Your task to perform on an android device: Open location settings Image 0: 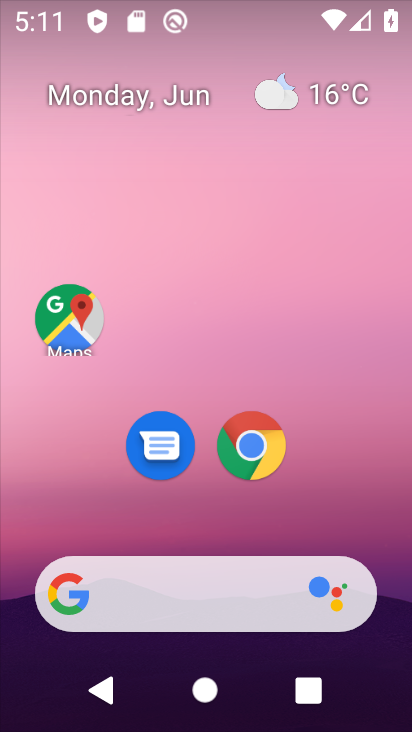
Step 0: drag from (348, 516) to (322, 21)
Your task to perform on an android device: Open location settings Image 1: 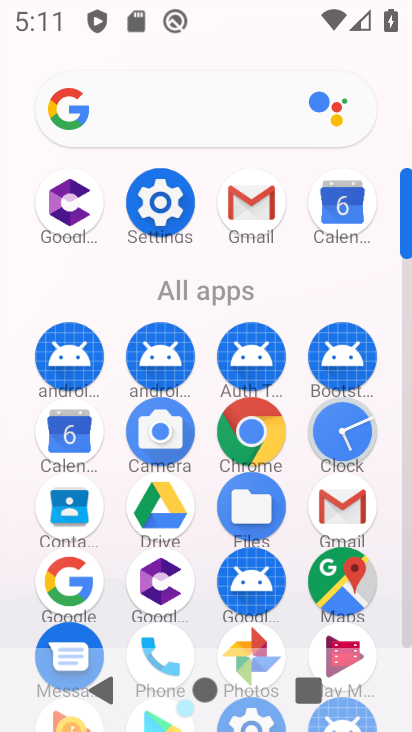
Step 1: click (162, 203)
Your task to perform on an android device: Open location settings Image 2: 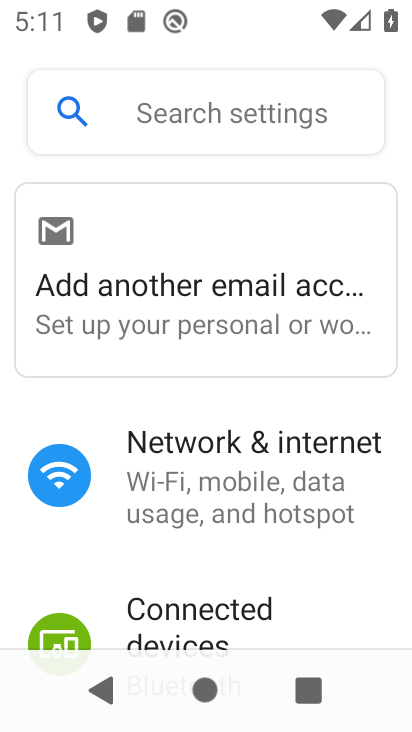
Step 2: drag from (189, 570) to (253, 345)
Your task to perform on an android device: Open location settings Image 3: 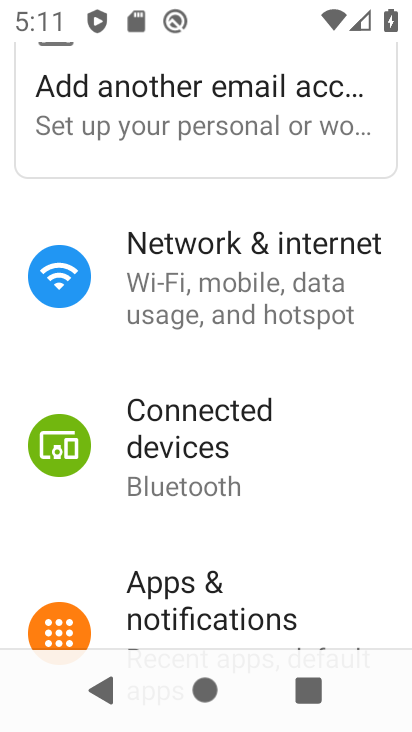
Step 3: drag from (170, 551) to (204, 280)
Your task to perform on an android device: Open location settings Image 4: 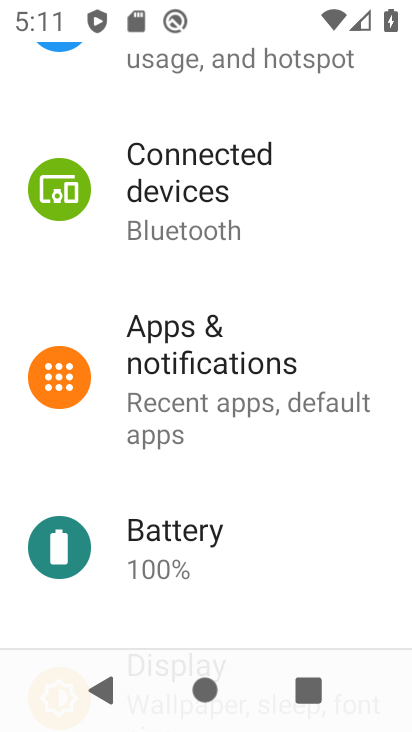
Step 4: drag from (165, 496) to (224, 265)
Your task to perform on an android device: Open location settings Image 5: 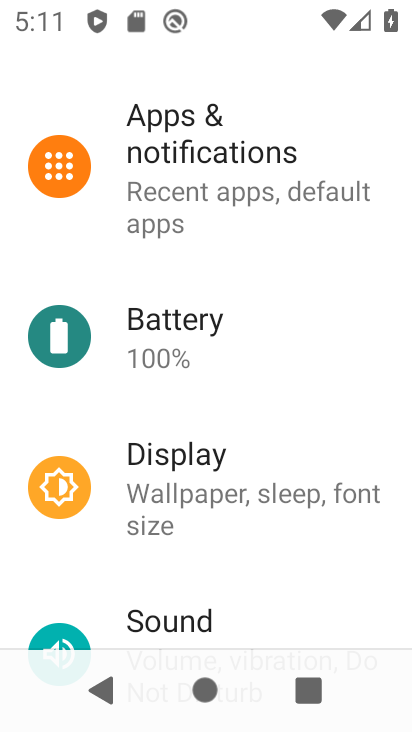
Step 5: drag from (166, 613) to (244, 375)
Your task to perform on an android device: Open location settings Image 6: 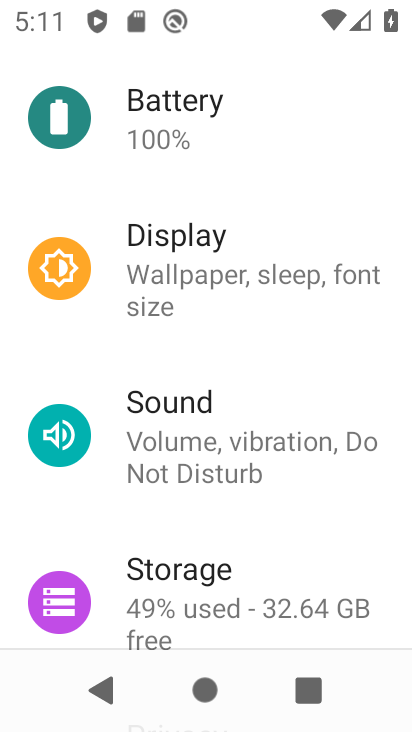
Step 6: drag from (162, 529) to (221, 317)
Your task to perform on an android device: Open location settings Image 7: 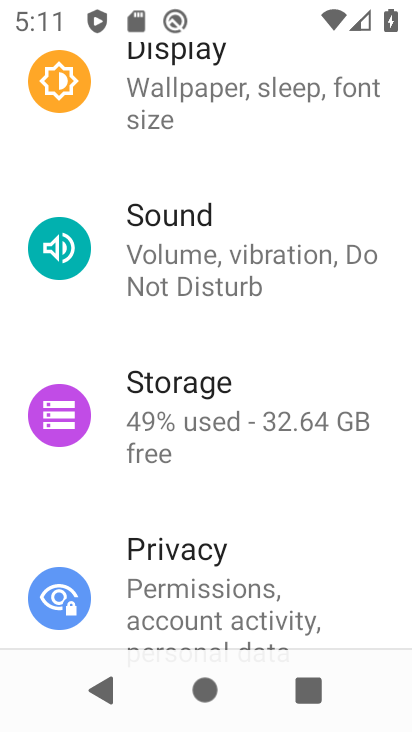
Step 7: drag from (175, 506) to (242, 326)
Your task to perform on an android device: Open location settings Image 8: 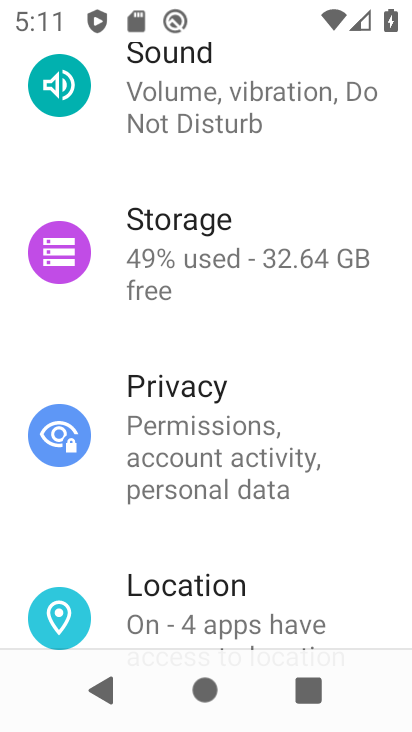
Step 8: drag from (165, 535) to (237, 361)
Your task to perform on an android device: Open location settings Image 9: 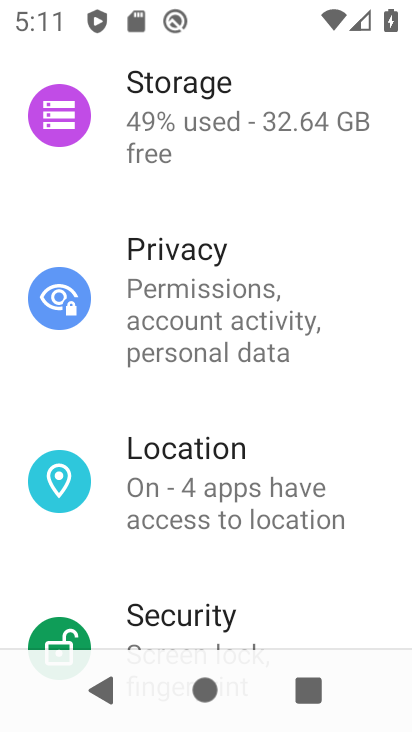
Step 9: click (191, 454)
Your task to perform on an android device: Open location settings Image 10: 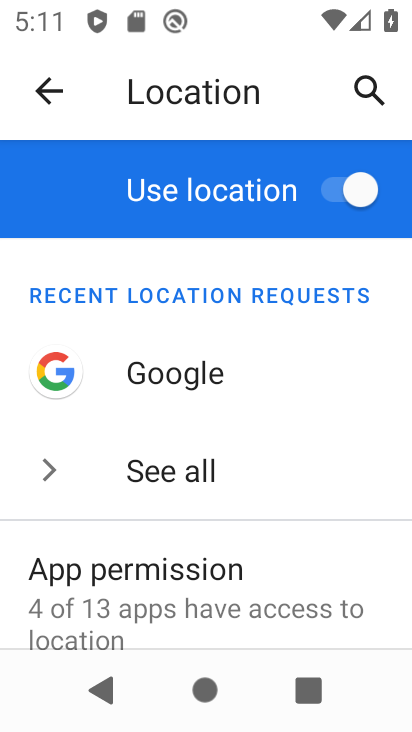
Step 10: task complete